Your task to perform on an android device: change alarm snooze length Image 0: 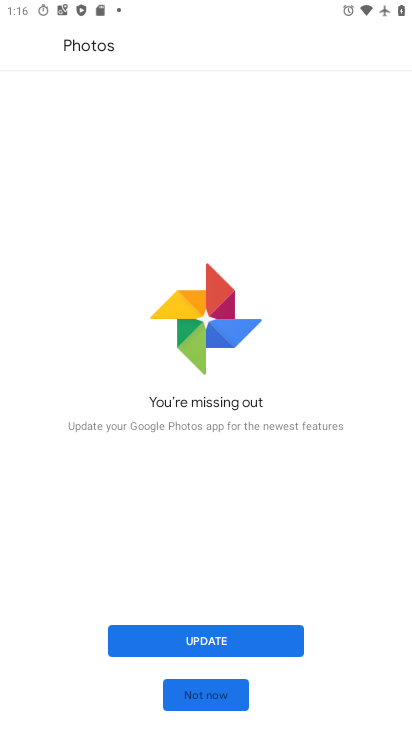
Step 0: press home button
Your task to perform on an android device: change alarm snooze length Image 1: 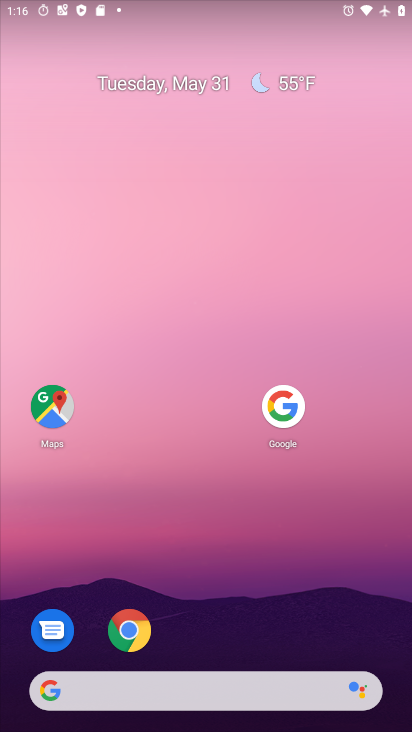
Step 1: drag from (176, 689) to (304, 151)
Your task to perform on an android device: change alarm snooze length Image 2: 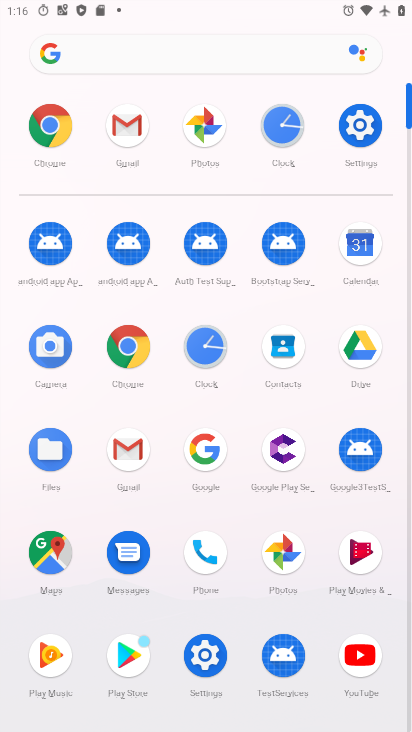
Step 2: click (279, 134)
Your task to perform on an android device: change alarm snooze length Image 3: 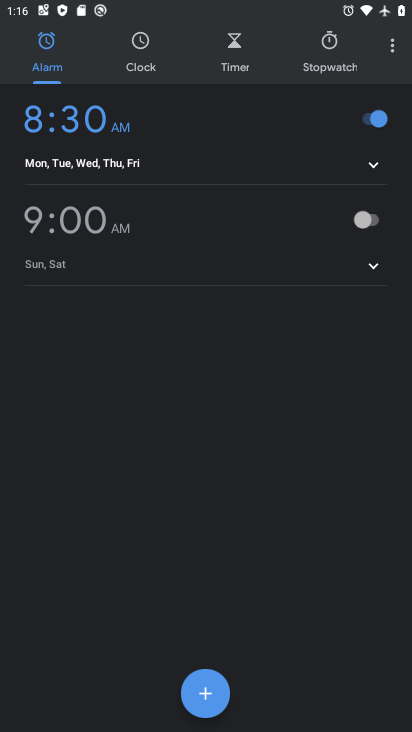
Step 3: click (393, 49)
Your task to perform on an android device: change alarm snooze length Image 4: 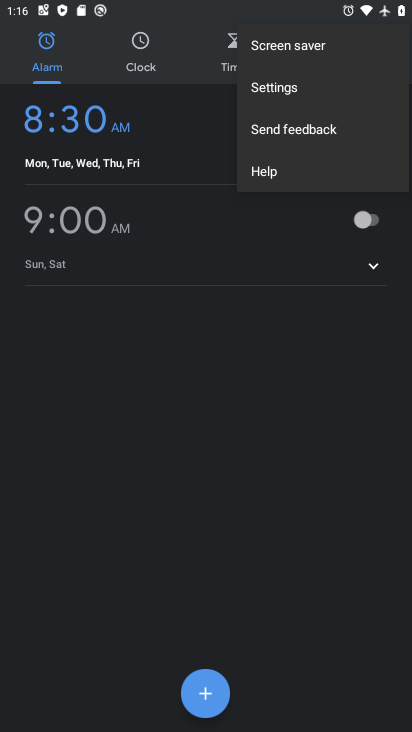
Step 4: click (275, 87)
Your task to perform on an android device: change alarm snooze length Image 5: 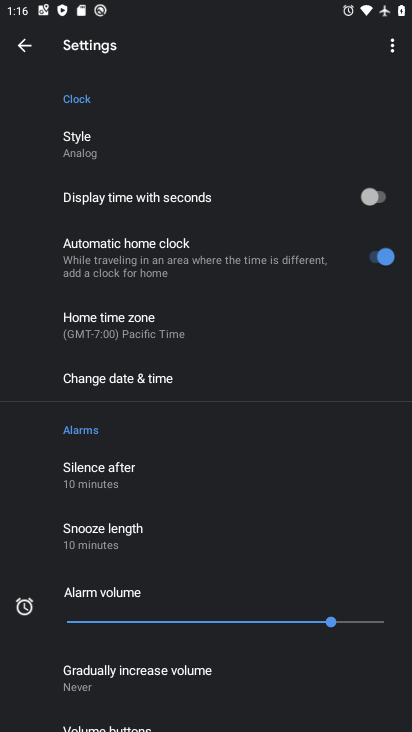
Step 5: drag from (147, 536) to (248, 110)
Your task to perform on an android device: change alarm snooze length Image 6: 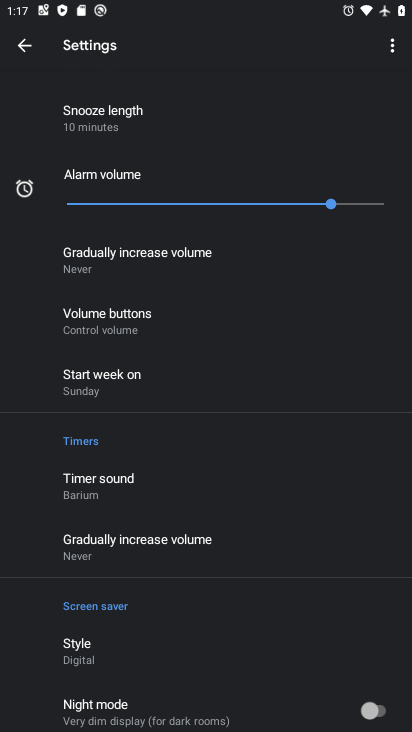
Step 6: click (92, 108)
Your task to perform on an android device: change alarm snooze length Image 7: 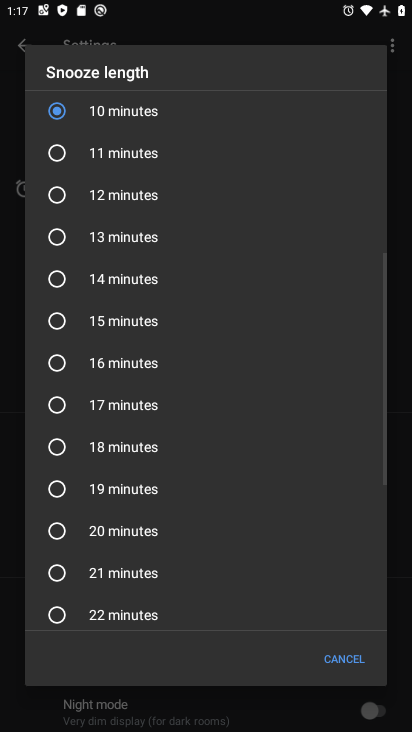
Step 7: click (57, 452)
Your task to perform on an android device: change alarm snooze length Image 8: 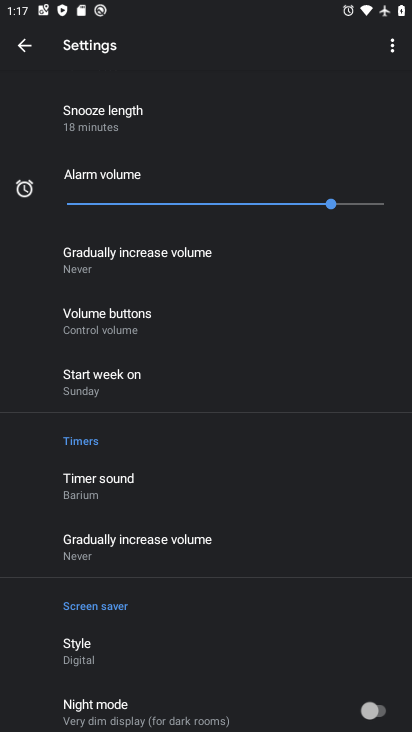
Step 8: task complete